Your task to perform on an android device: toggle show notifications on the lock screen Image 0: 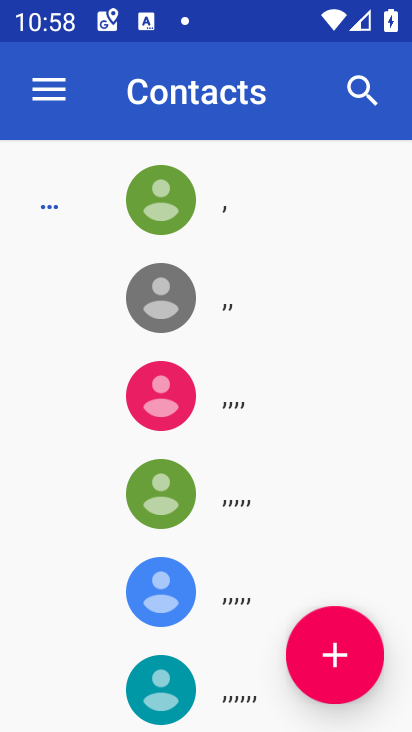
Step 0: press home button
Your task to perform on an android device: toggle show notifications on the lock screen Image 1: 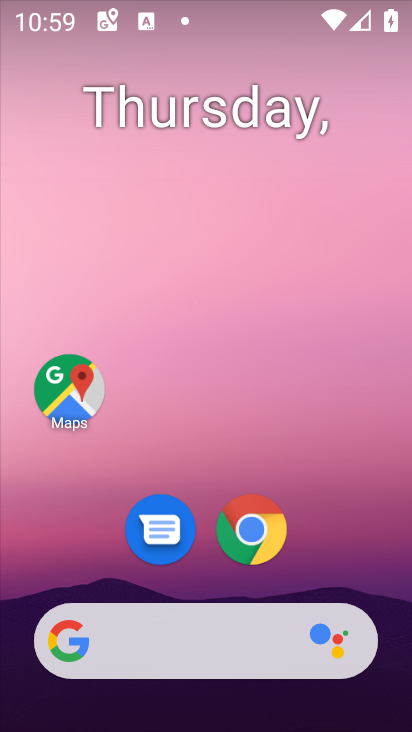
Step 1: drag from (223, 626) to (233, 64)
Your task to perform on an android device: toggle show notifications on the lock screen Image 2: 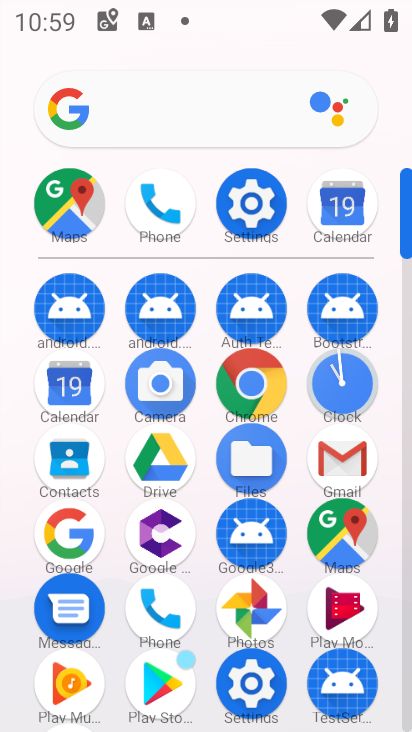
Step 2: click (270, 218)
Your task to perform on an android device: toggle show notifications on the lock screen Image 3: 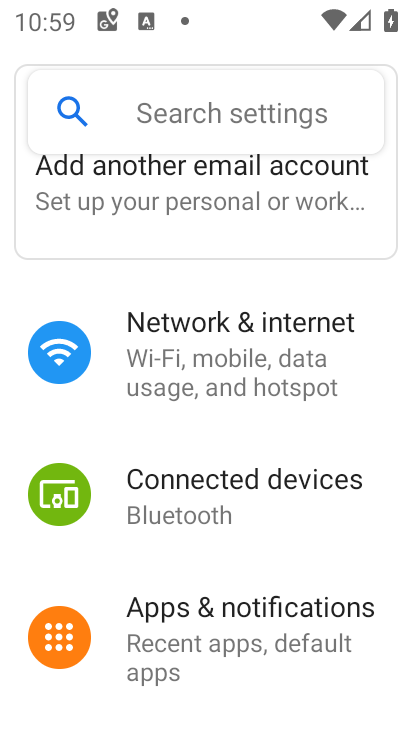
Step 3: click (212, 623)
Your task to perform on an android device: toggle show notifications on the lock screen Image 4: 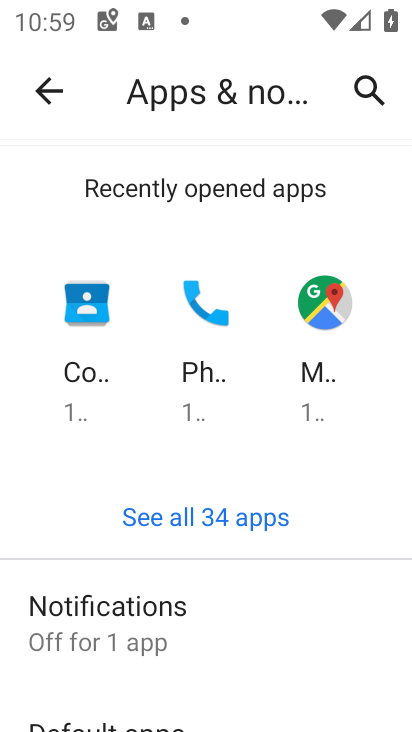
Step 4: drag from (188, 580) to (172, 351)
Your task to perform on an android device: toggle show notifications on the lock screen Image 5: 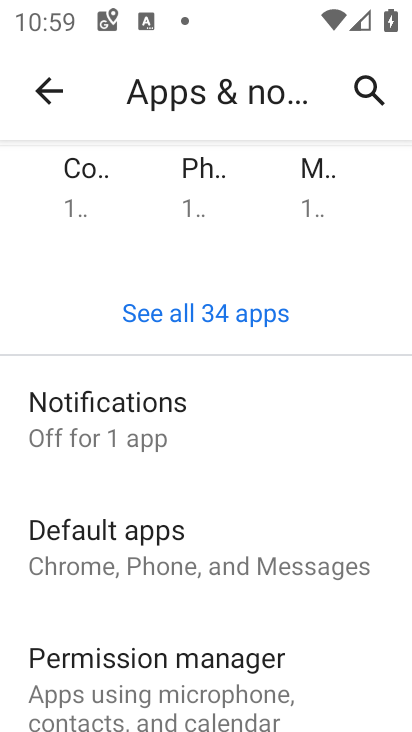
Step 5: click (157, 434)
Your task to perform on an android device: toggle show notifications on the lock screen Image 6: 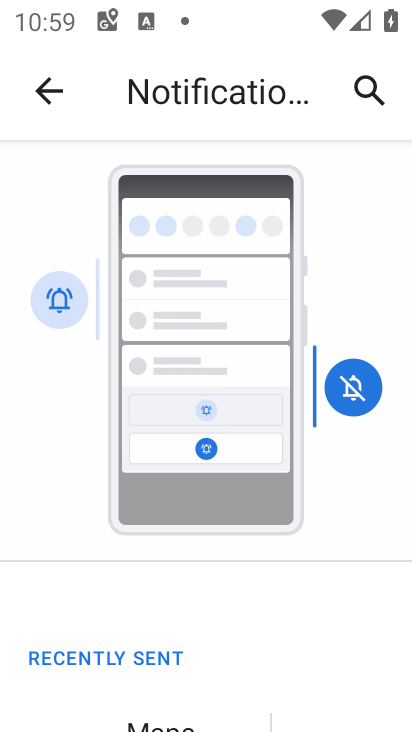
Step 6: drag from (226, 577) to (208, 191)
Your task to perform on an android device: toggle show notifications on the lock screen Image 7: 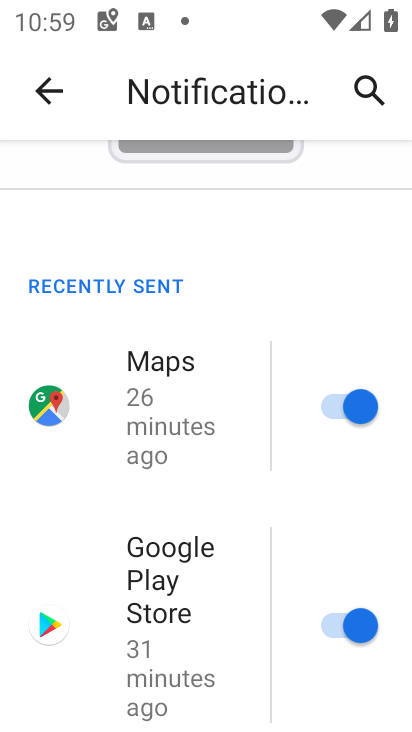
Step 7: drag from (172, 557) to (197, 227)
Your task to perform on an android device: toggle show notifications on the lock screen Image 8: 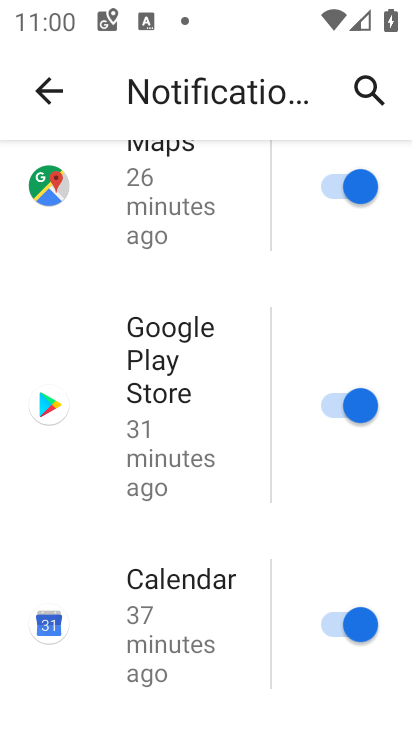
Step 8: drag from (200, 457) to (278, 69)
Your task to perform on an android device: toggle show notifications on the lock screen Image 9: 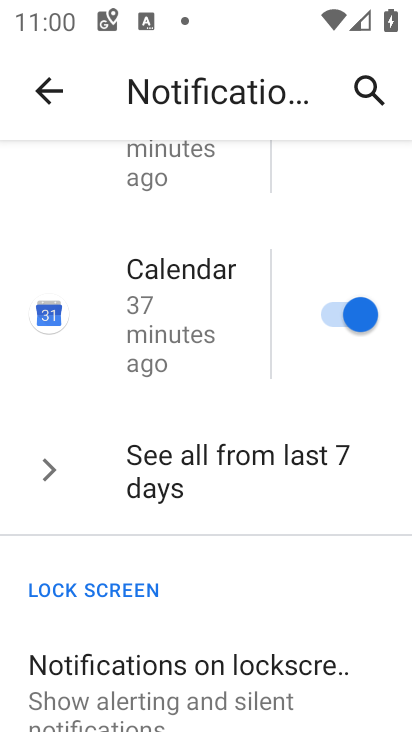
Step 9: click (175, 667)
Your task to perform on an android device: toggle show notifications on the lock screen Image 10: 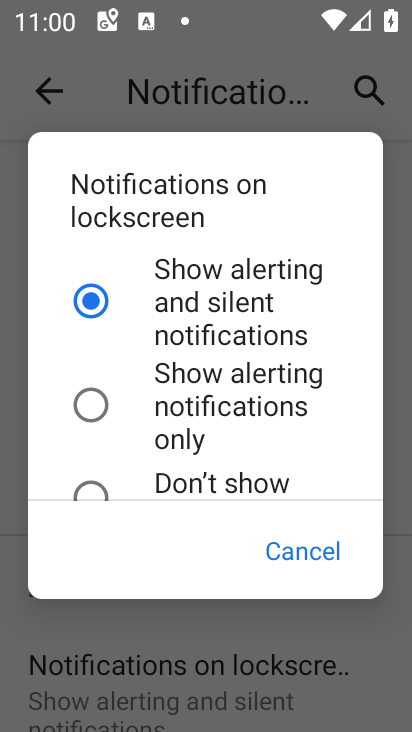
Step 10: click (90, 492)
Your task to perform on an android device: toggle show notifications on the lock screen Image 11: 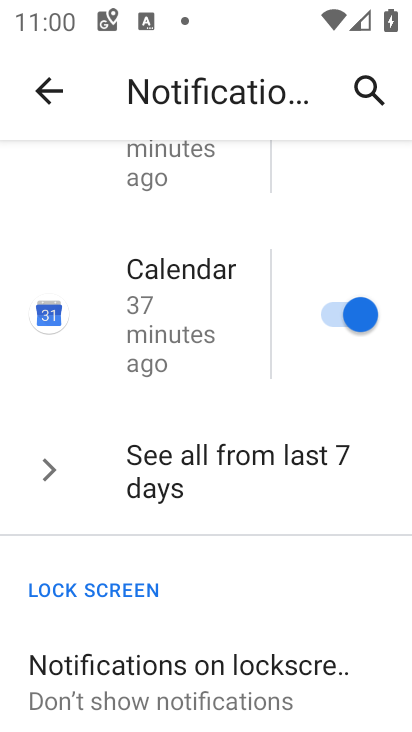
Step 11: task complete